Your task to perform on an android device: turn off javascript in the chrome app Image 0: 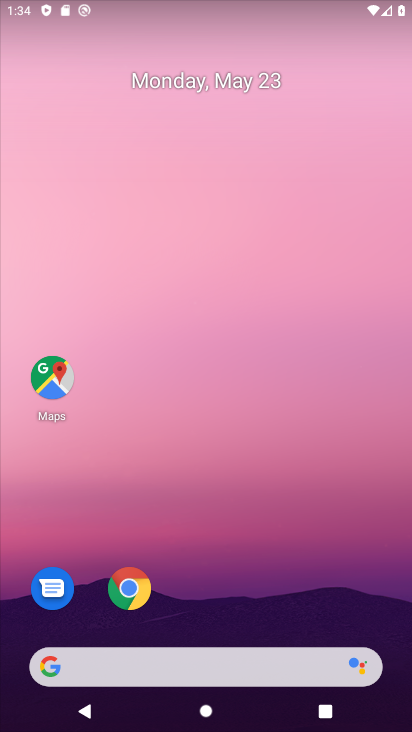
Step 0: click (128, 588)
Your task to perform on an android device: turn off javascript in the chrome app Image 1: 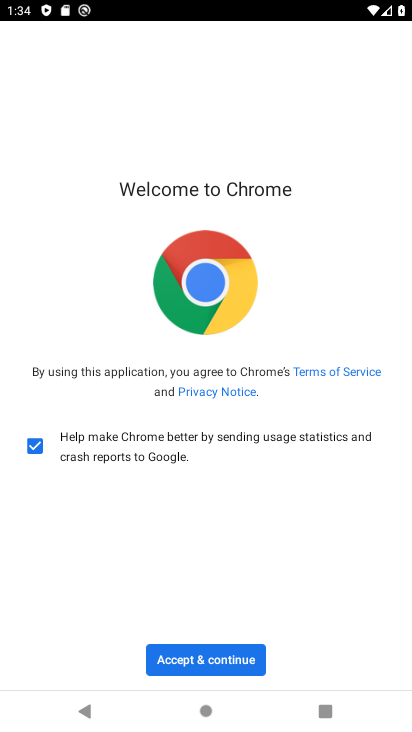
Step 1: click (205, 660)
Your task to perform on an android device: turn off javascript in the chrome app Image 2: 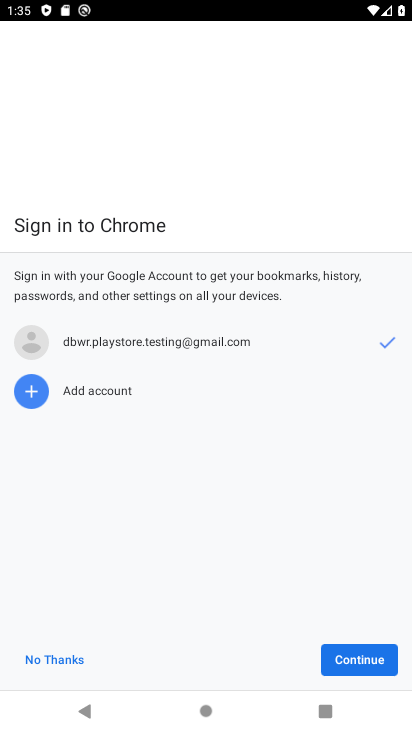
Step 2: click (351, 662)
Your task to perform on an android device: turn off javascript in the chrome app Image 3: 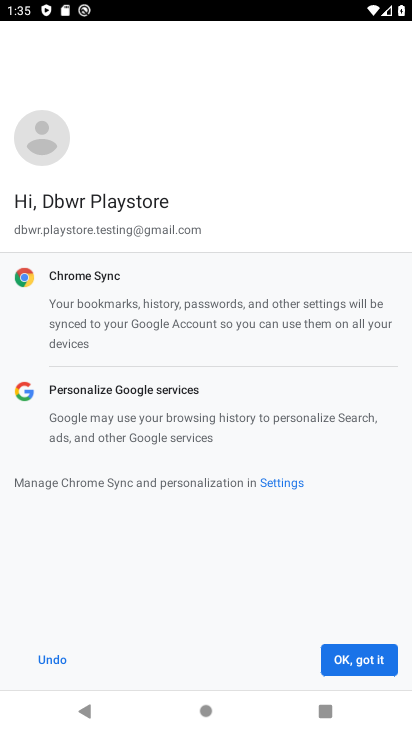
Step 3: click (368, 657)
Your task to perform on an android device: turn off javascript in the chrome app Image 4: 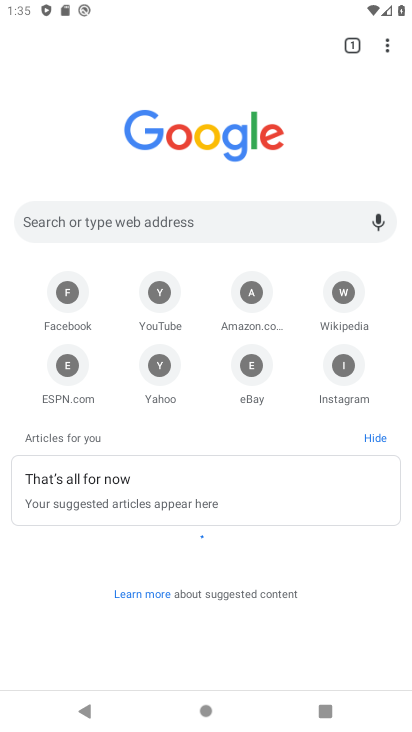
Step 4: click (389, 49)
Your task to perform on an android device: turn off javascript in the chrome app Image 5: 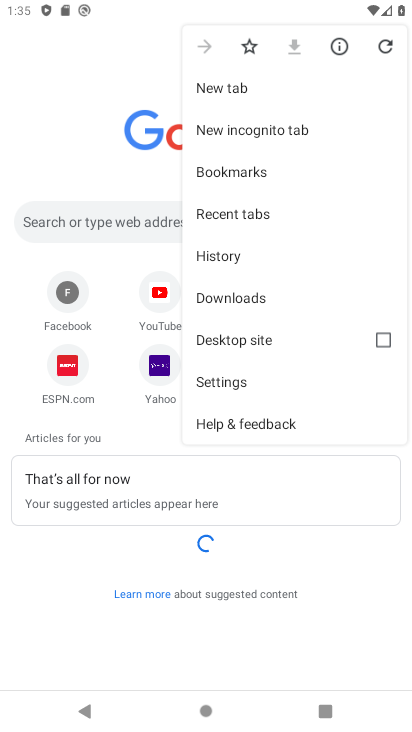
Step 5: click (229, 382)
Your task to perform on an android device: turn off javascript in the chrome app Image 6: 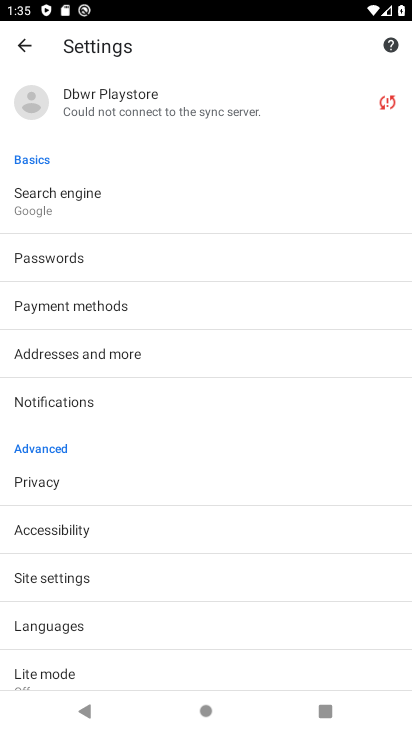
Step 6: click (78, 574)
Your task to perform on an android device: turn off javascript in the chrome app Image 7: 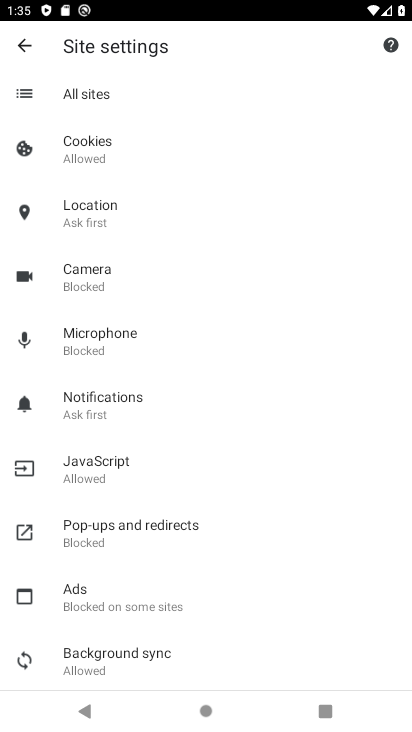
Step 7: click (99, 466)
Your task to perform on an android device: turn off javascript in the chrome app Image 8: 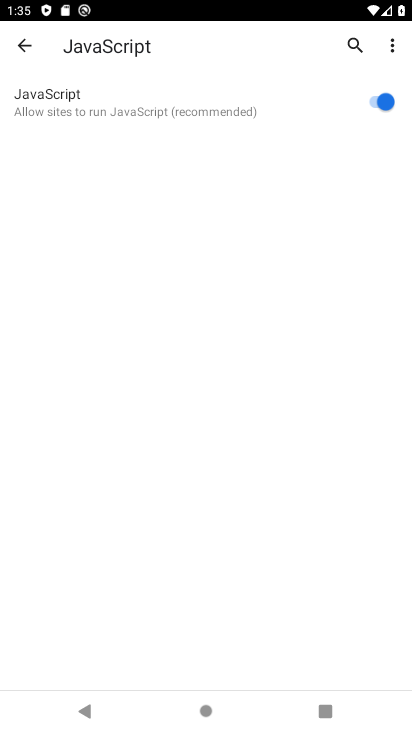
Step 8: click (374, 98)
Your task to perform on an android device: turn off javascript in the chrome app Image 9: 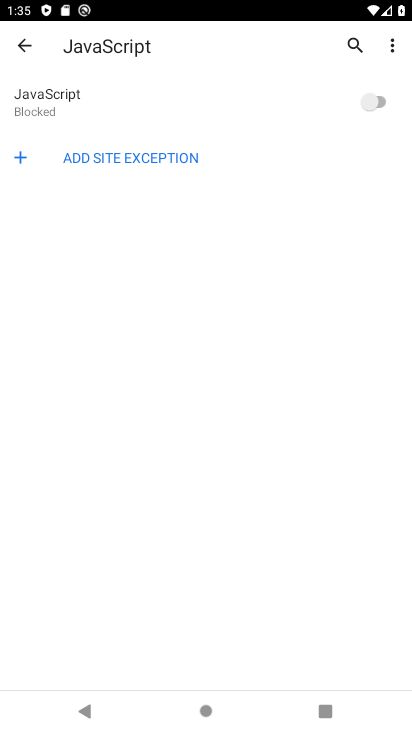
Step 9: task complete